Your task to perform on an android device: Find coffee shops on Maps Image 0: 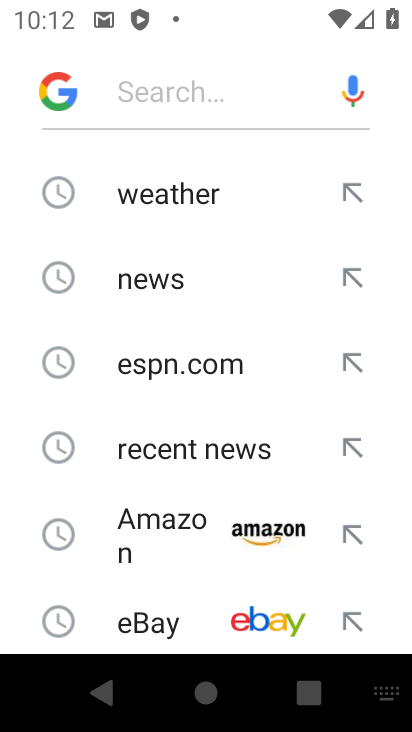
Step 0: press home button
Your task to perform on an android device: Find coffee shops on Maps Image 1: 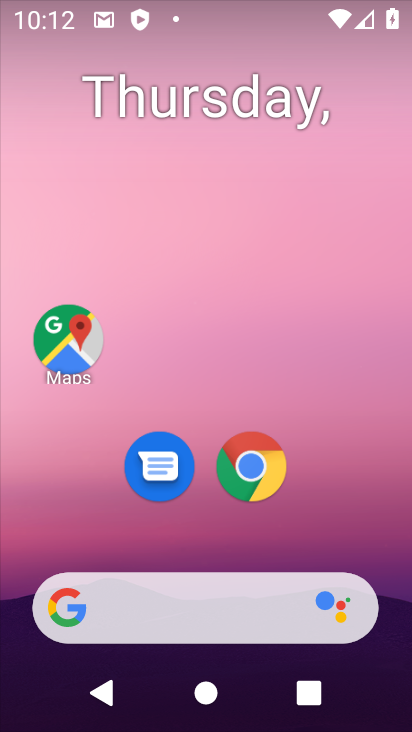
Step 1: click (73, 345)
Your task to perform on an android device: Find coffee shops on Maps Image 2: 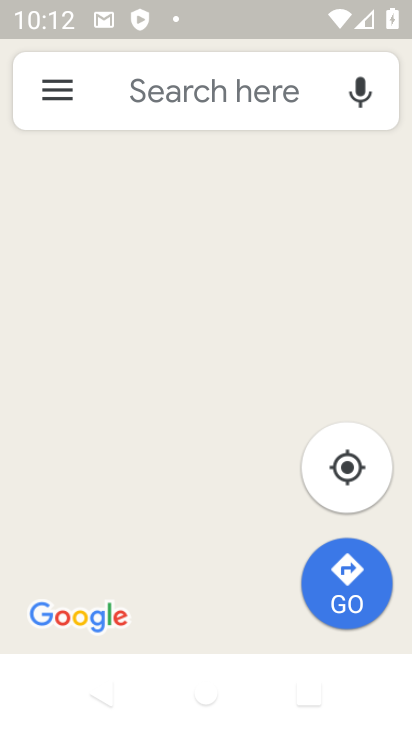
Step 2: click (232, 97)
Your task to perform on an android device: Find coffee shops on Maps Image 3: 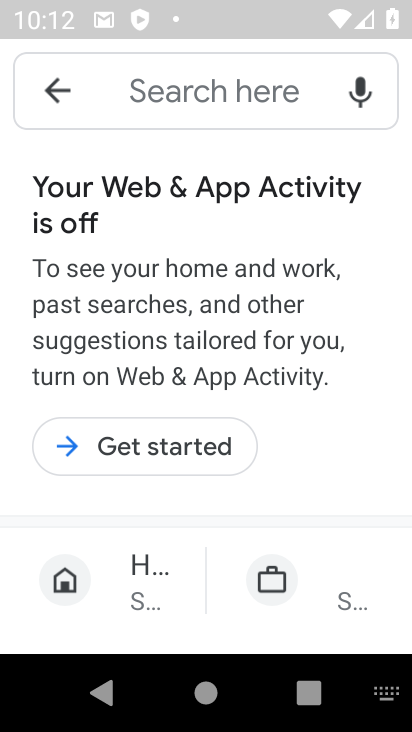
Step 3: type "coffee shops"
Your task to perform on an android device: Find coffee shops on Maps Image 4: 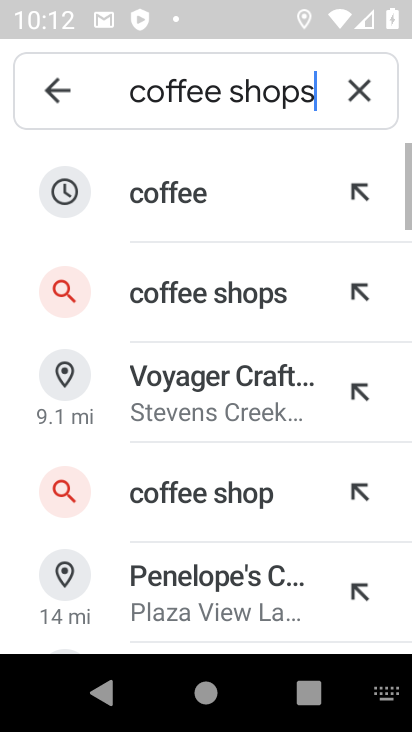
Step 4: click (218, 314)
Your task to perform on an android device: Find coffee shops on Maps Image 5: 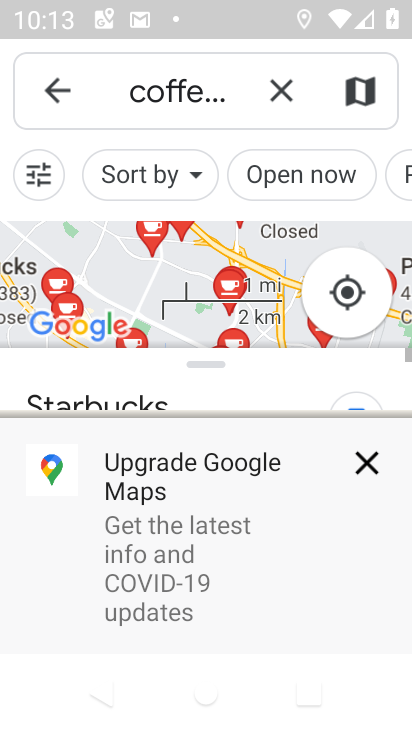
Step 5: task complete